Your task to perform on an android device: turn off picture-in-picture Image 0: 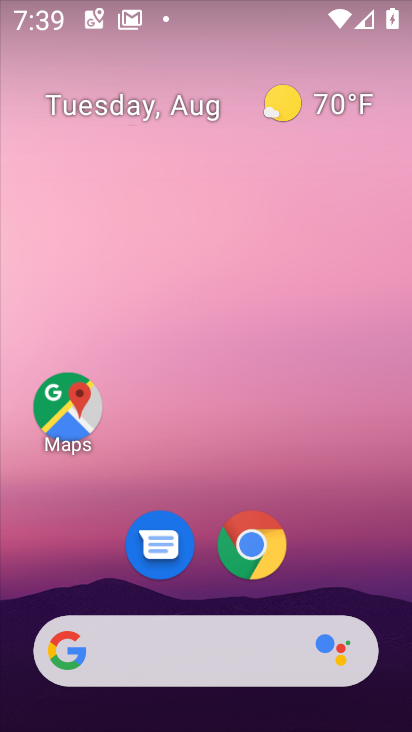
Step 0: drag from (215, 637) to (264, 171)
Your task to perform on an android device: turn off picture-in-picture Image 1: 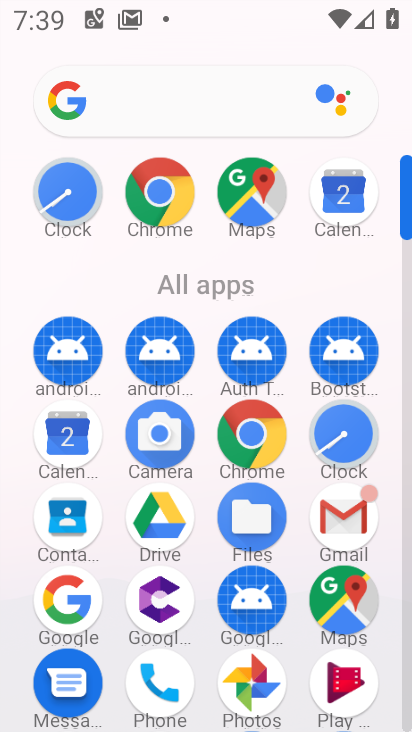
Step 1: drag from (214, 525) to (226, 191)
Your task to perform on an android device: turn off picture-in-picture Image 2: 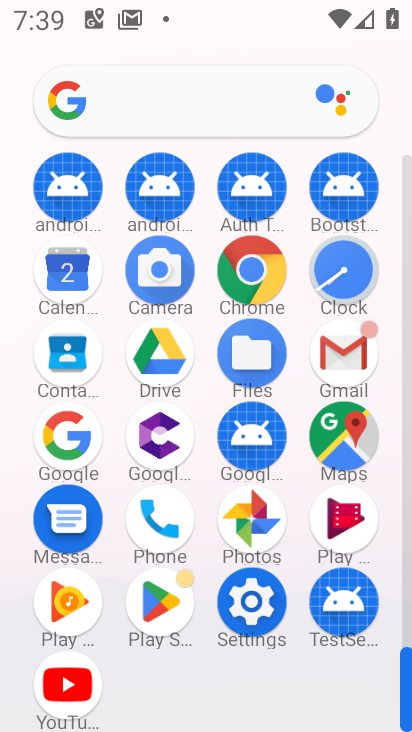
Step 2: click (256, 616)
Your task to perform on an android device: turn off picture-in-picture Image 3: 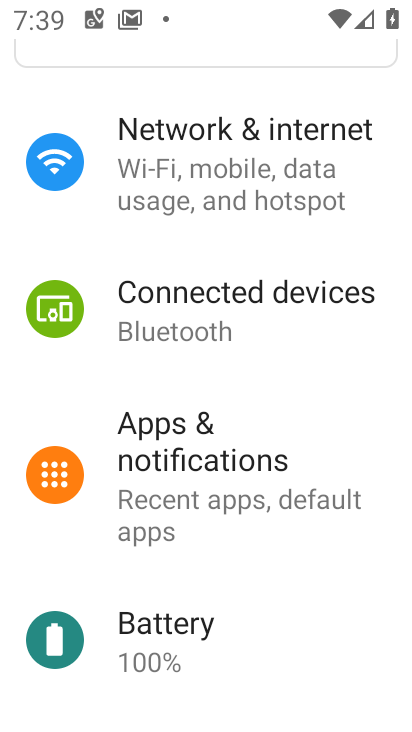
Step 3: click (265, 493)
Your task to perform on an android device: turn off picture-in-picture Image 4: 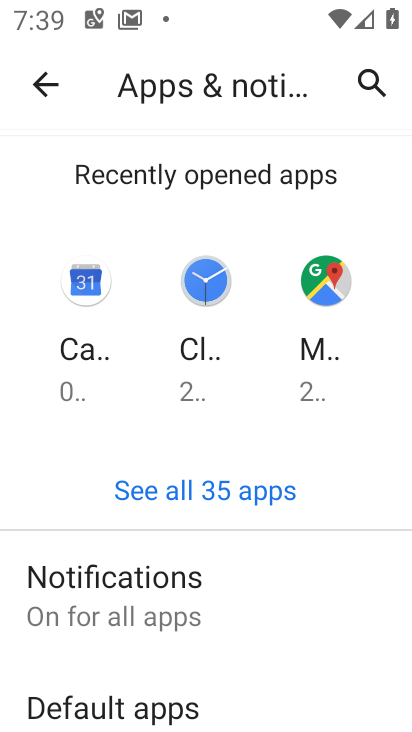
Step 4: drag from (233, 557) to (304, 174)
Your task to perform on an android device: turn off picture-in-picture Image 5: 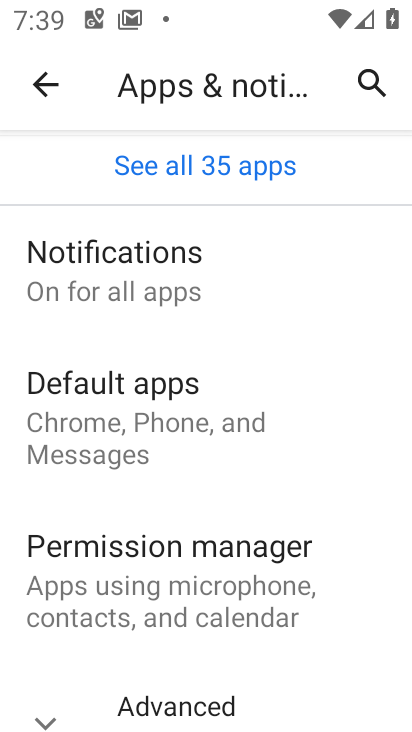
Step 5: drag from (268, 551) to (285, 178)
Your task to perform on an android device: turn off picture-in-picture Image 6: 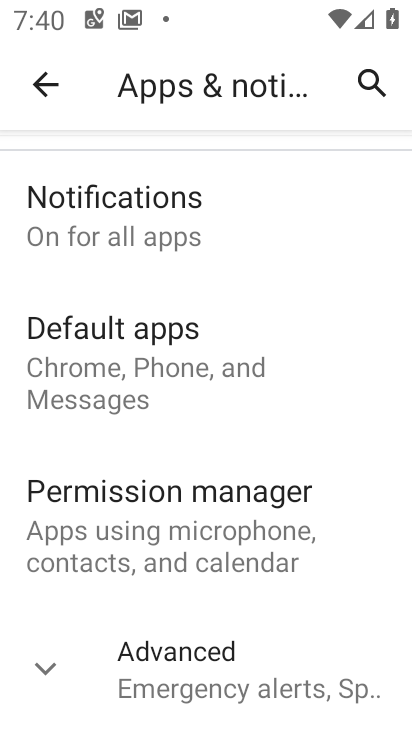
Step 6: drag from (207, 582) to (210, 201)
Your task to perform on an android device: turn off picture-in-picture Image 7: 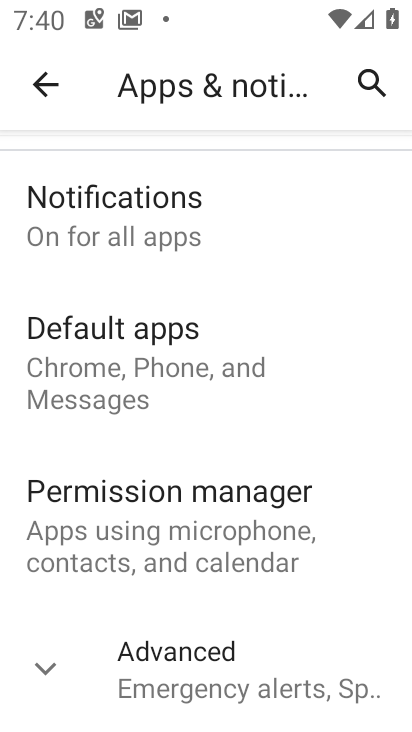
Step 7: click (243, 654)
Your task to perform on an android device: turn off picture-in-picture Image 8: 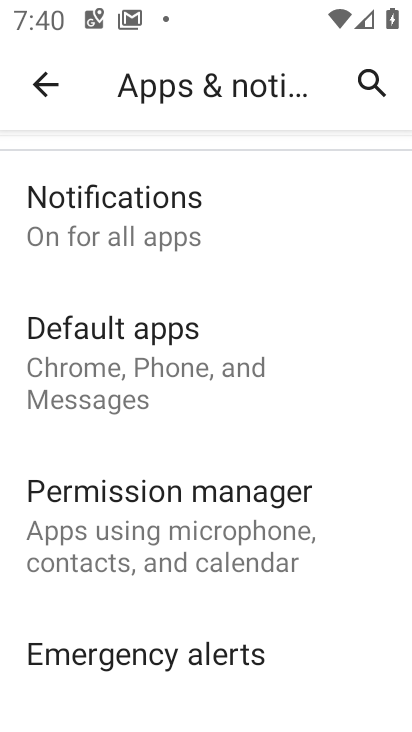
Step 8: drag from (231, 544) to (255, 102)
Your task to perform on an android device: turn off picture-in-picture Image 9: 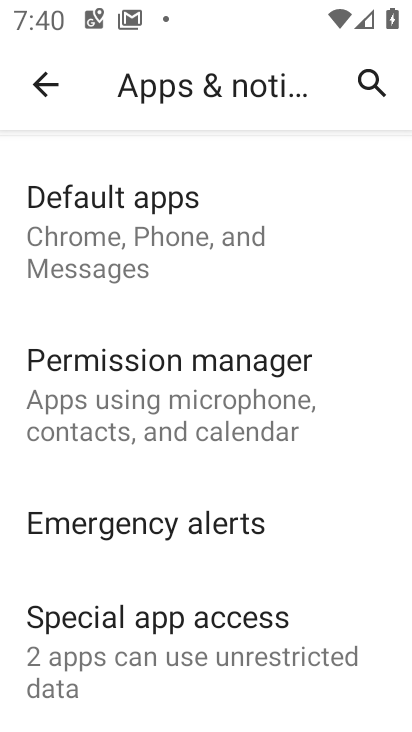
Step 9: click (219, 630)
Your task to perform on an android device: turn off picture-in-picture Image 10: 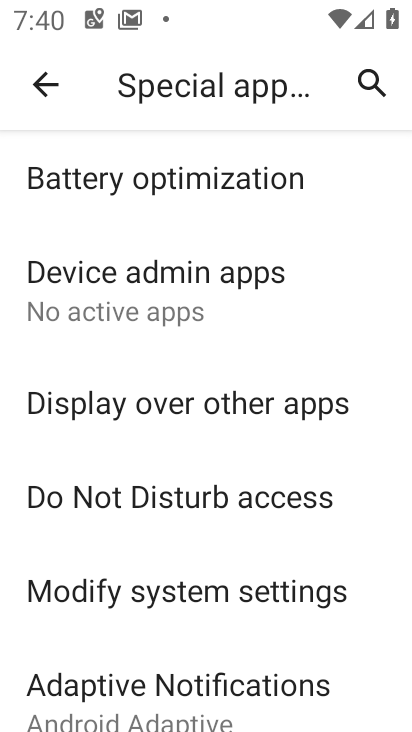
Step 10: drag from (285, 477) to (298, 50)
Your task to perform on an android device: turn off picture-in-picture Image 11: 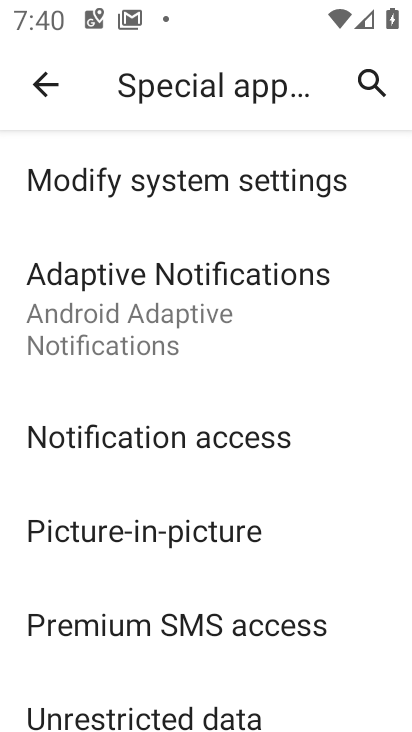
Step 11: click (217, 507)
Your task to perform on an android device: turn off picture-in-picture Image 12: 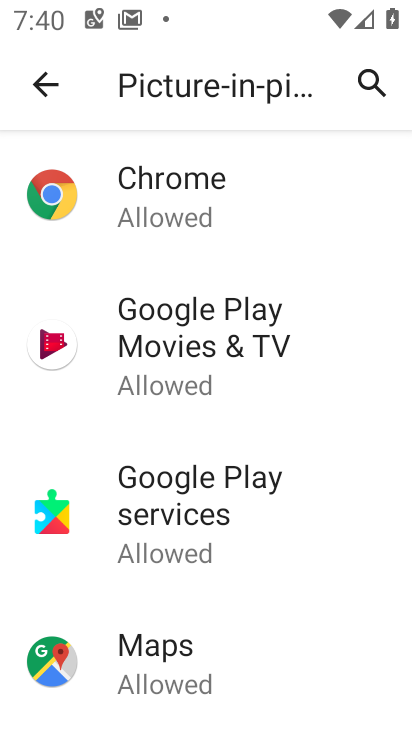
Step 12: click (279, 209)
Your task to perform on an android device: turn off picture-in-picture Image 13: 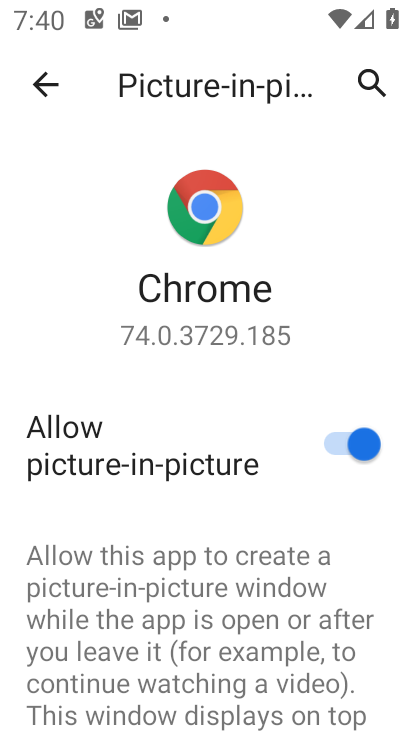
Step 13: click (336, 447)
Your task to perform on an android device: turn off picture-in-picture Image 14: 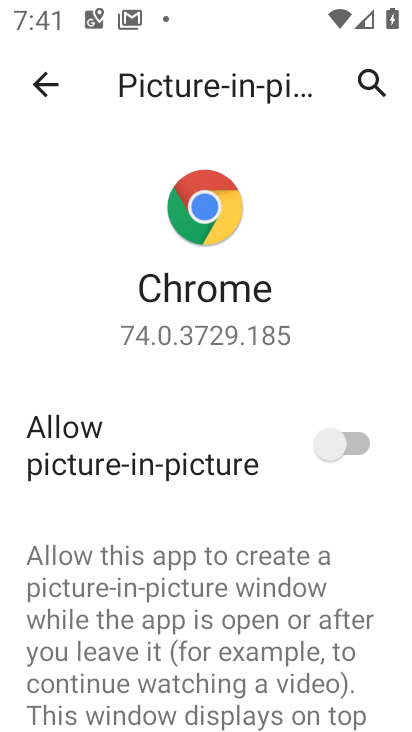
Step 14: task complete